Your task to perform on an android device: open chrome privacy settings Image 0: 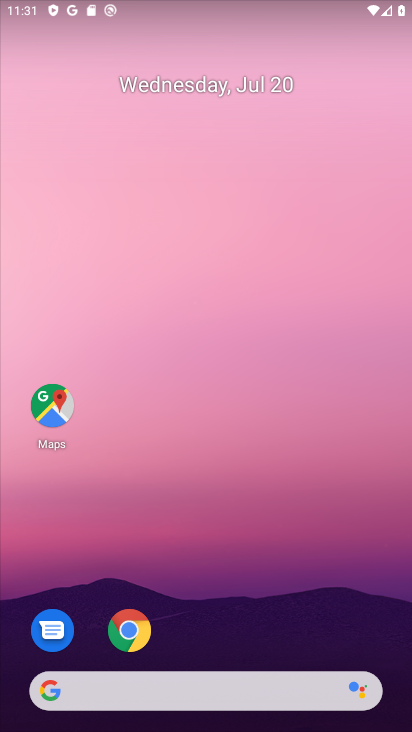
Step 0: click (128, 627)
Your task to perform on an android device: open chrome privacy settings Image 1: 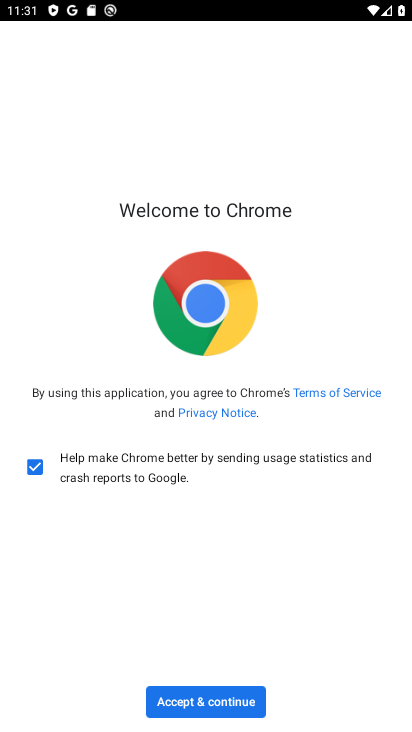
Step 1: click (190, 700)
Your task to perform on an android device: open chrome privacy settings Image 2: 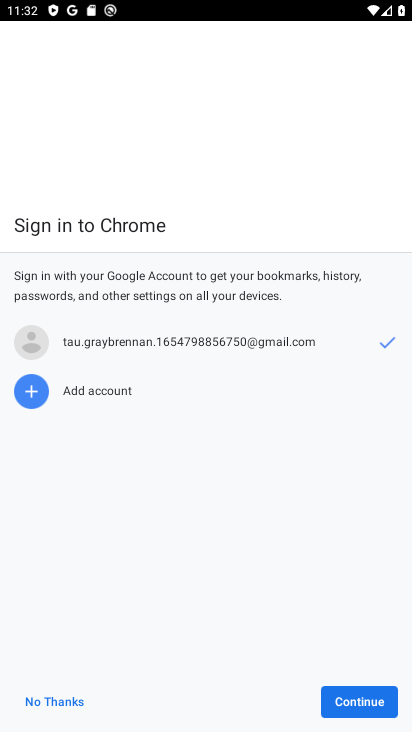
Step 2: click (334, 693)
Your task to perform on an android device: open chrome privacy settings Image 3: 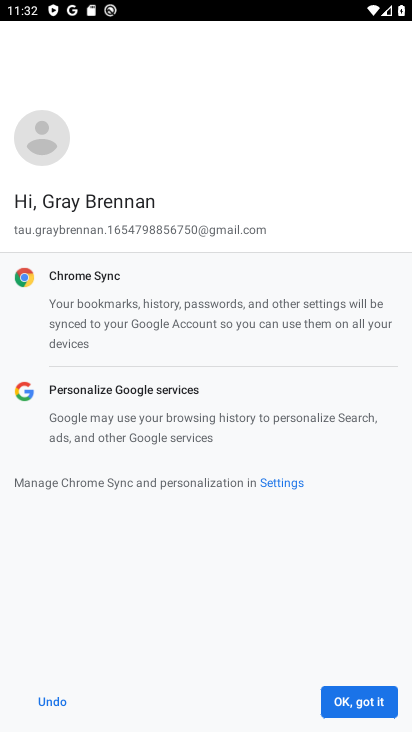
Step 3: click (341, 711)
Your task to perform on an android device: open chrome privacy settings Image 4: 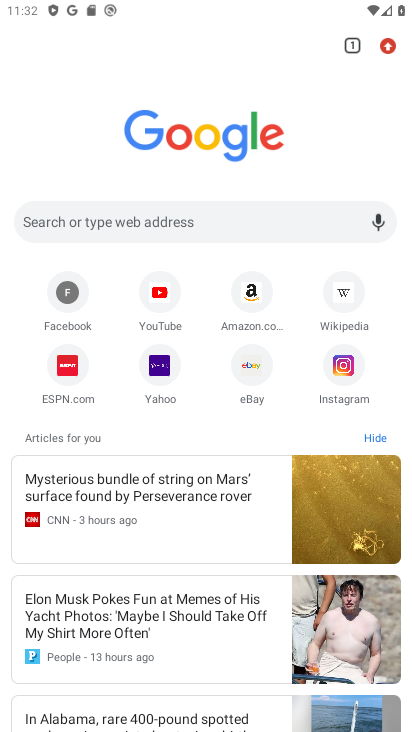
Step 4: click (379, 42)
Your task to perform on an android device: open chrome privacy settings Image 5: 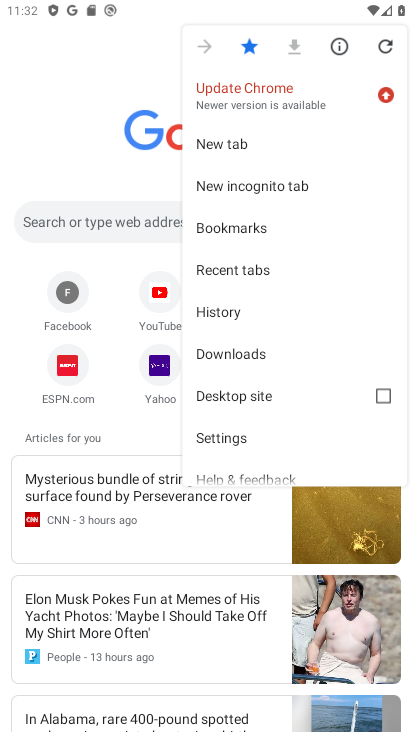
Step 5: click (231, 437)
Your task to perform on an android device: open chrome privacy settings Image 6: 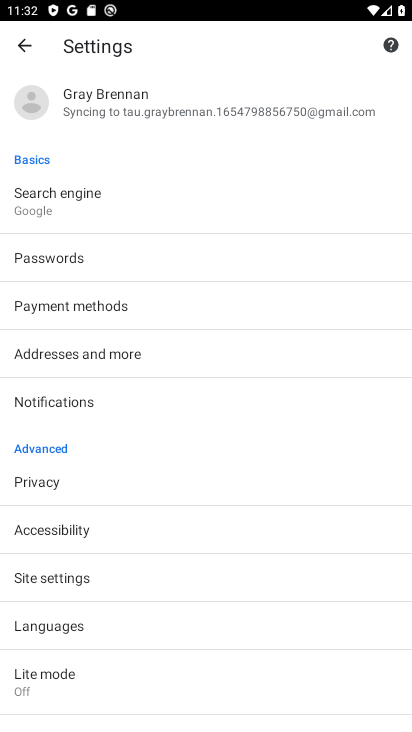
Step 6: click (59, 483)
Your task to perform on an android device: open chrome privacy settings Image 7: 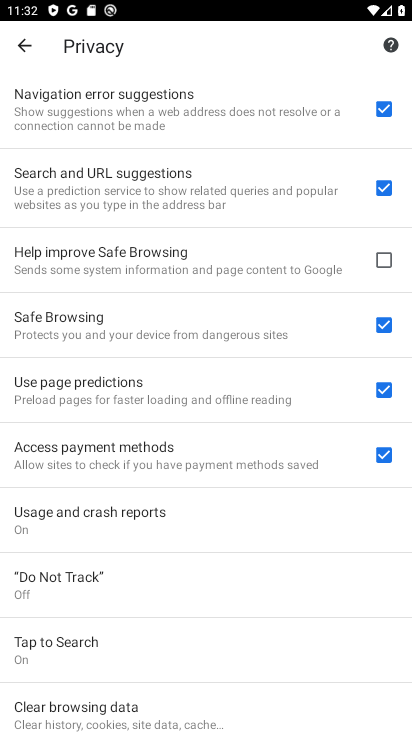
Step 7: task complete